Your task to perform on an android device: Open calendar and show me the fourth week of next month Image 0: 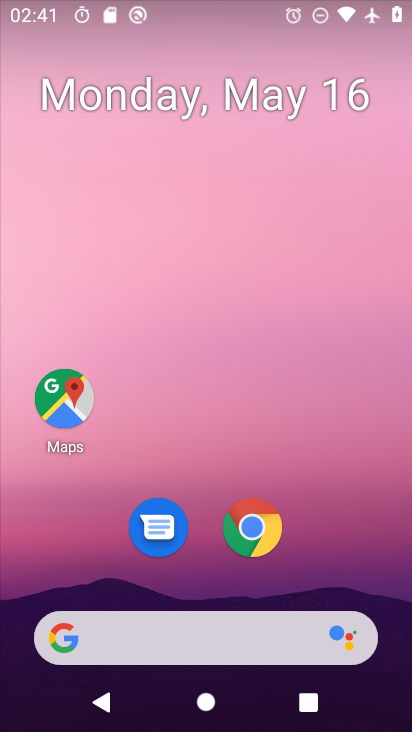
Step 0: press home button
Your task to perform on an android device: Open calendar and show me the fourth week of next month Image 1: 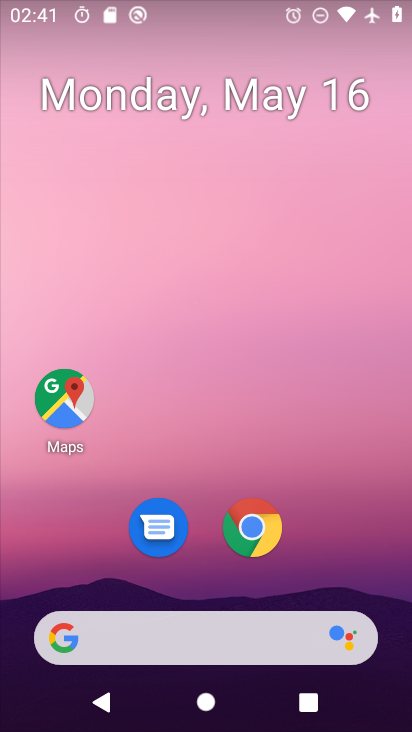
Step 1: drag from (181, 638) to (334, 269)
Your task to perform on an android device: Open calendar and show me the fourth week of next month Image 2: 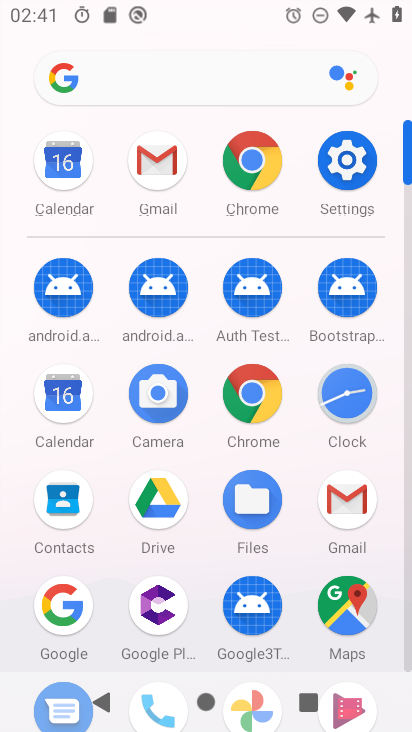
Step 2: click (58, 164)
Your task to perform on an android device: Open calendar and show me the fourth week of next month Image 3: 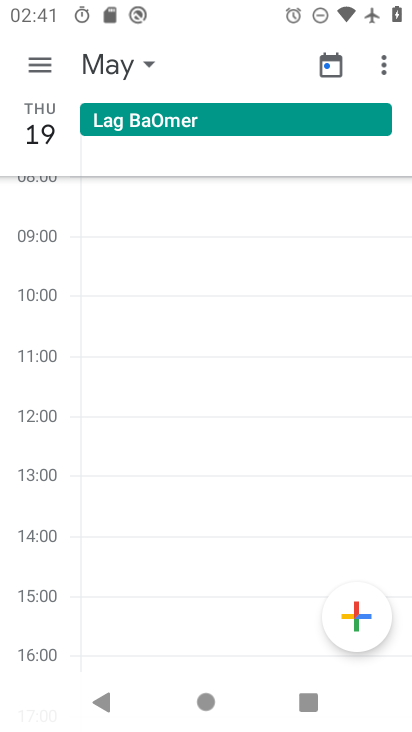
Step 3: click (121, 70)
Your task to perform on an android device: Open calendar and show me the fourth week of next month Image 4: 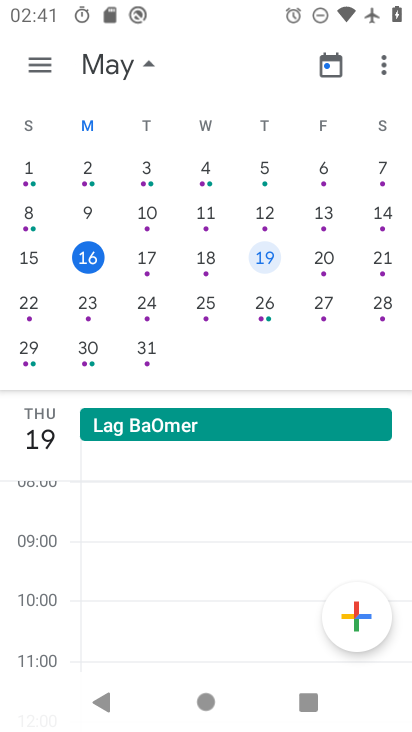
Step 4: drag from (373, 236) to (105, 209)
Your task to perform on an android device: Open calendar and show me the fourth week of next month Image 5: 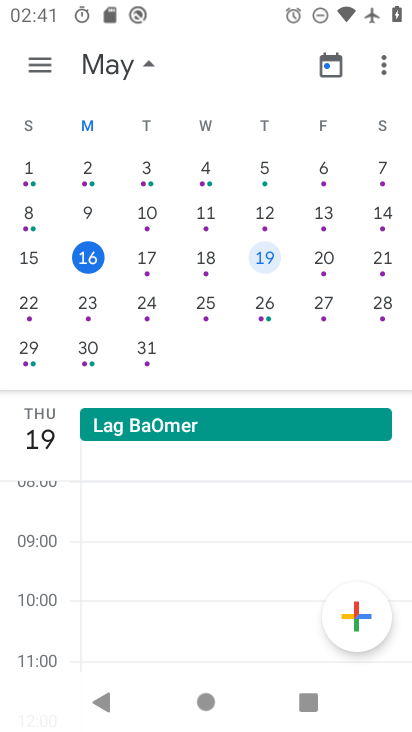
Step 5: drag from (381, 228) to (50, 228)
Your task to perform on an android device: Open calendar and show me the fourth week of next month Image 6: 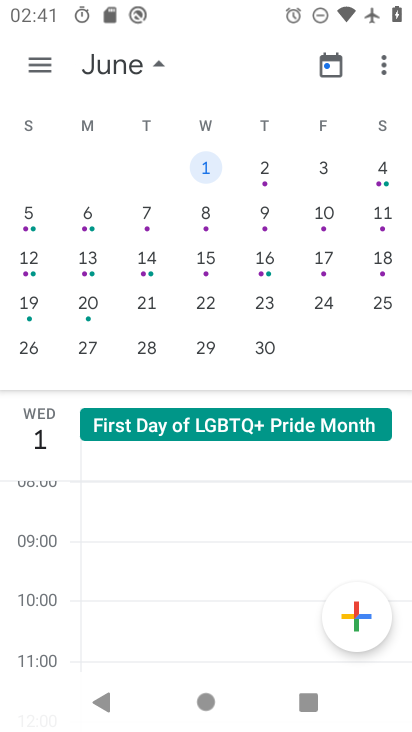
Step 6: click (34, 303)
Your task to perform on an android device: Open calendar and show me the fourth week of next month Image 7: 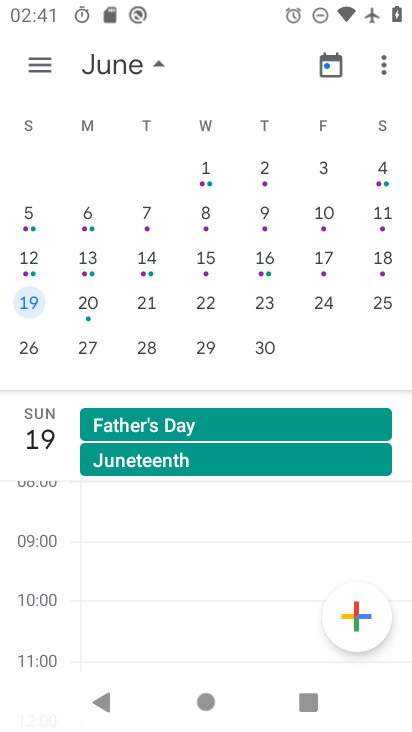
Step 7: click (37, 68)
Your task to perform on an android device: Open calendar and show me the fourth week of next month Image 8: 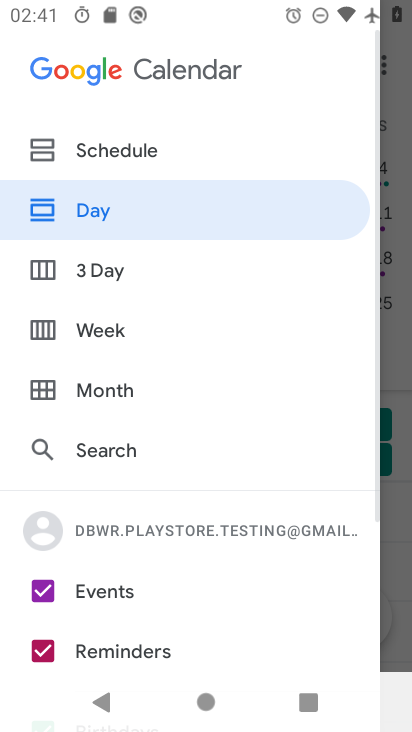
Step 8: click (89, 337)
Your task to perform on an android device: Open calendar and show me the fourth week of next month Image 9: 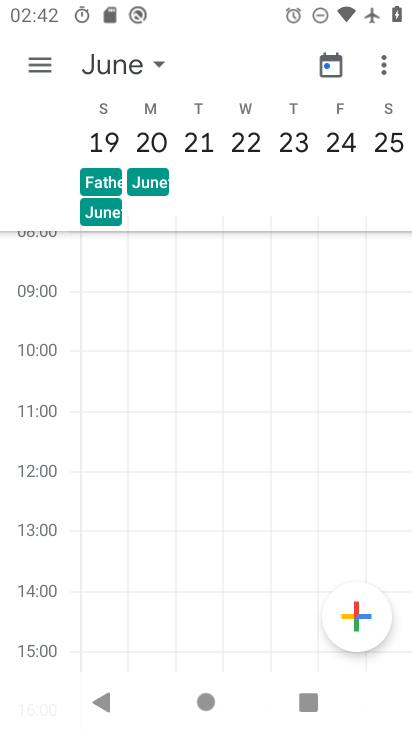
Step 9: task complete